Your task to perform on an android device: check data usage Image 0: 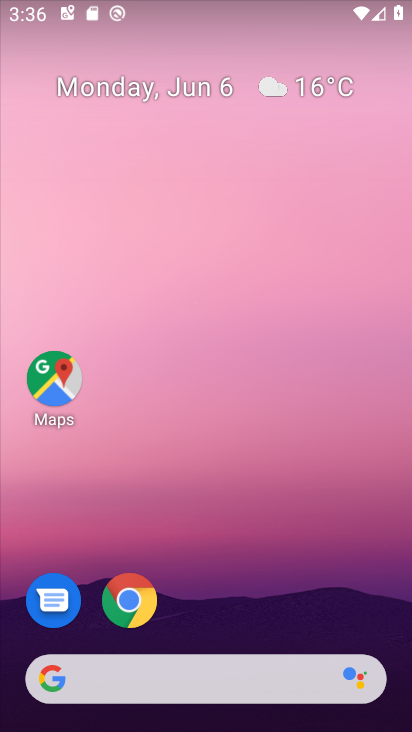
Step 0: drag from (254, 598) to (203, 312)
Your task to perform on an android device: check data usage Image 1: 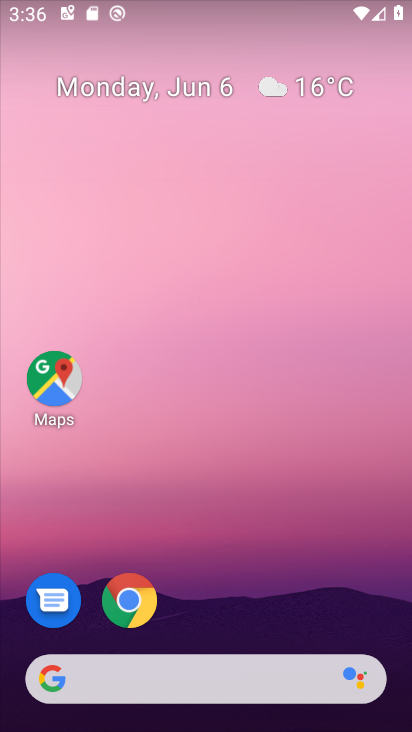
Step 1: drag from (262, 499) to (229, 75)
Your task to perform on an android device: check data usage Image 2: 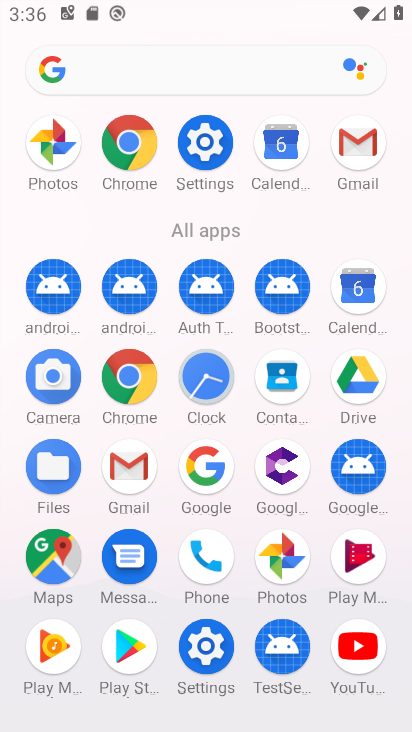
Step 2: drag from (305, 696) to (174, 190)
Your task to perform on an android device: check data usage Image 3: 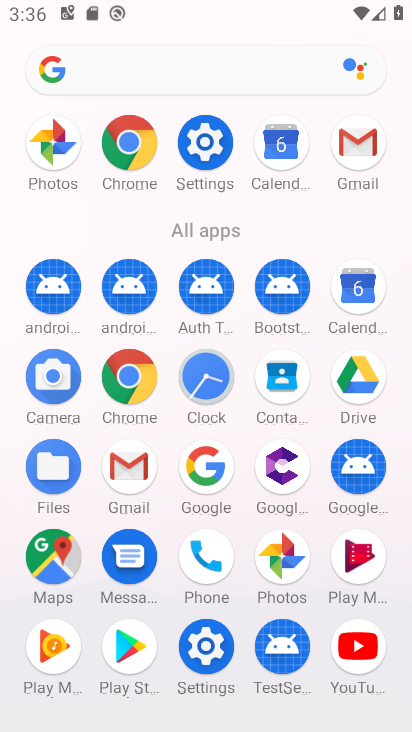
Step 3: click (188, 146)
Your task to perform on an android device: check data usage Image 4: 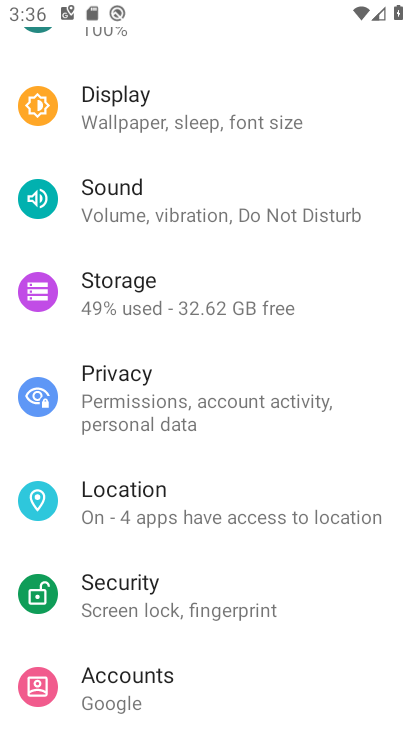
Step 4: click (201, 657)
Your task to perform on an android device: check data usage Image 5: 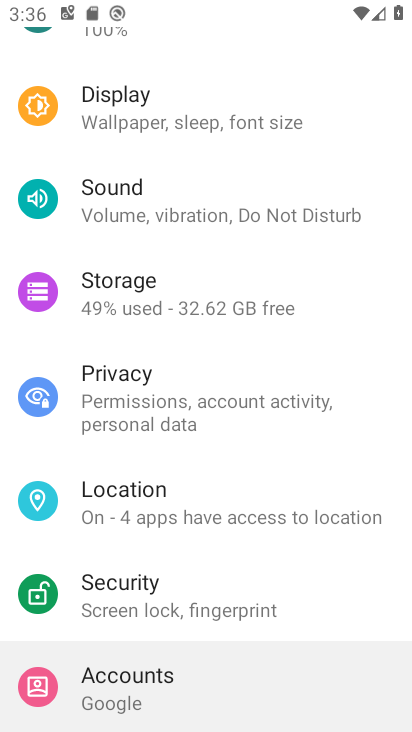
Step 5: drag from (178, 239) to (200, 639)
Your task to perform on an android device: check data usage Image 6: 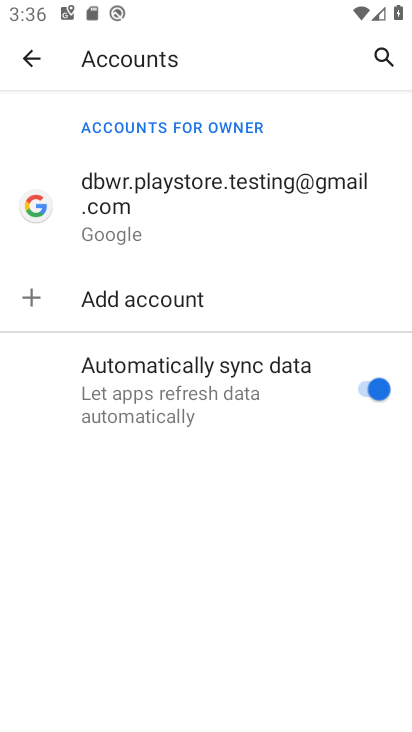
Step 6: click (30, 56)
Your task to perform on an android device: check data usage Image 7: 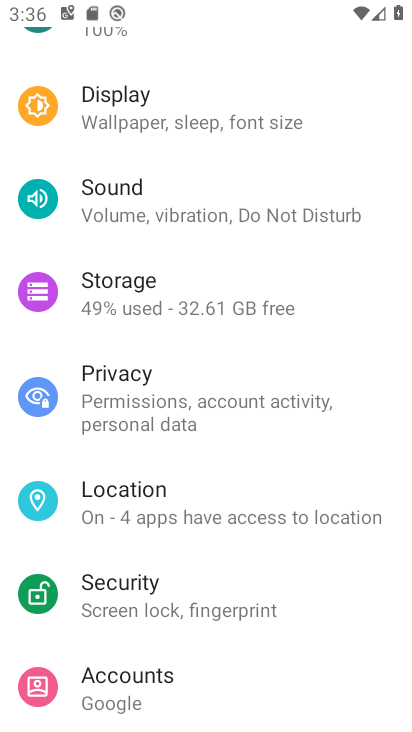
Step 7: drag from (212, 89) to (241, 562)
Your task to perform on an android device: check data usage Image 8: 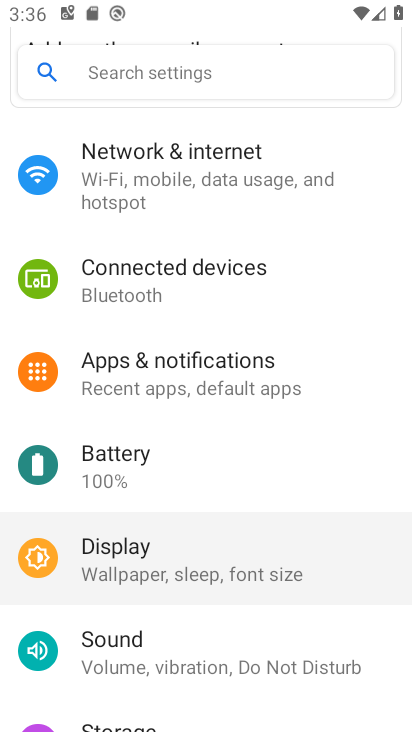
Step 8: drag from (212, 215) to (229, 654)
Your task to perform on an android device: check data usage Image 9: 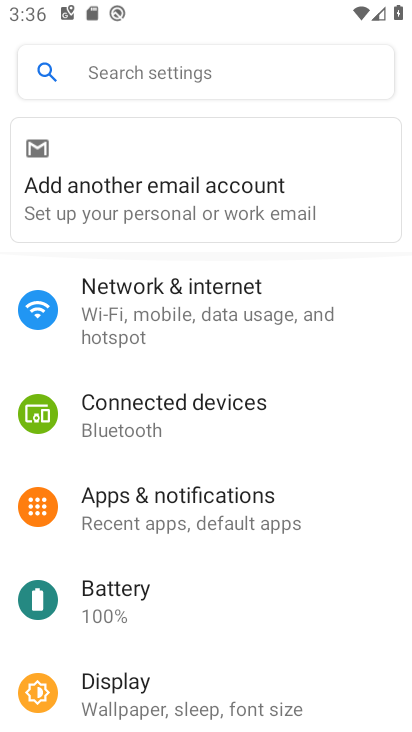
Step 9: drag from (187, 227) to (232, 649)
Your task to perform on an android device: check data usage Image 10: 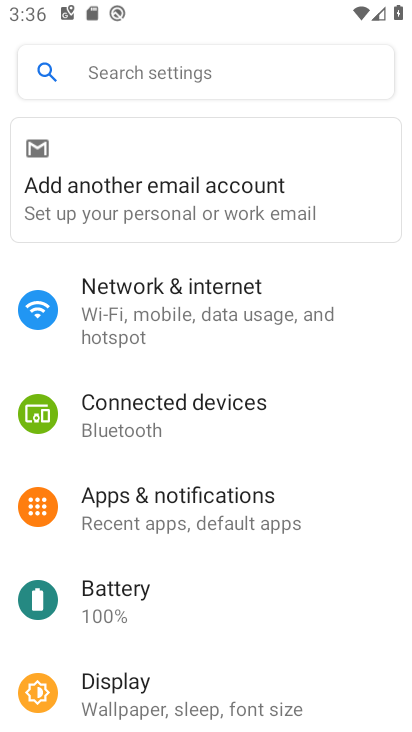
Step 10: click (214, 291)
Your task to perform on an android device: check data usage Image 11: 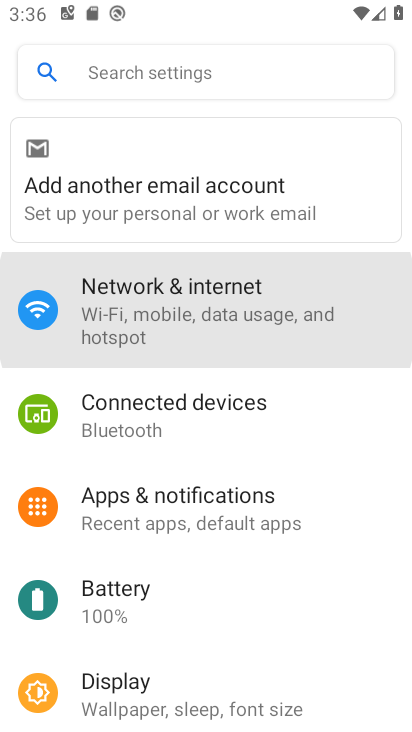
Step 11: click (214, 291)
Your task to perform on an android device: check data usage Image 12: 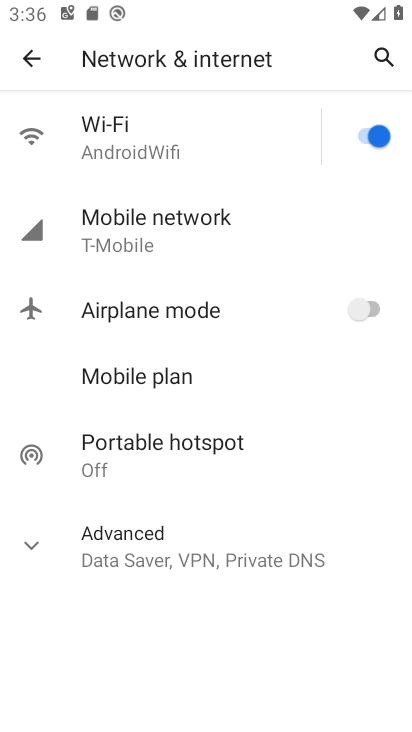
Step 12: task complete